Your task to perform on an android device: set an alarm Image 0: 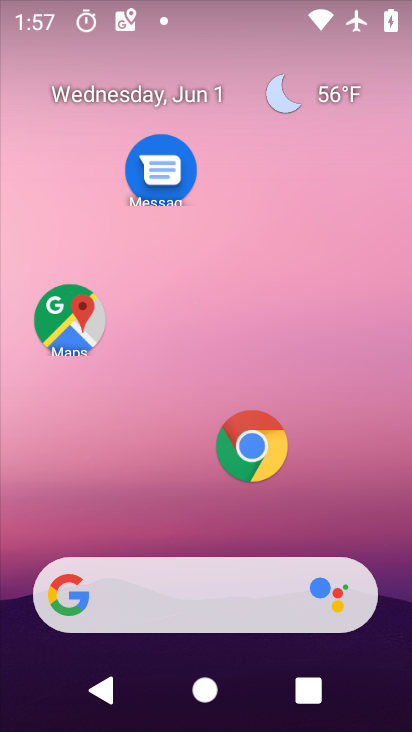
Step 0: drag from (32, 556) to (261, 216)
Your task to perform on an android device: set an alarm Image 1: 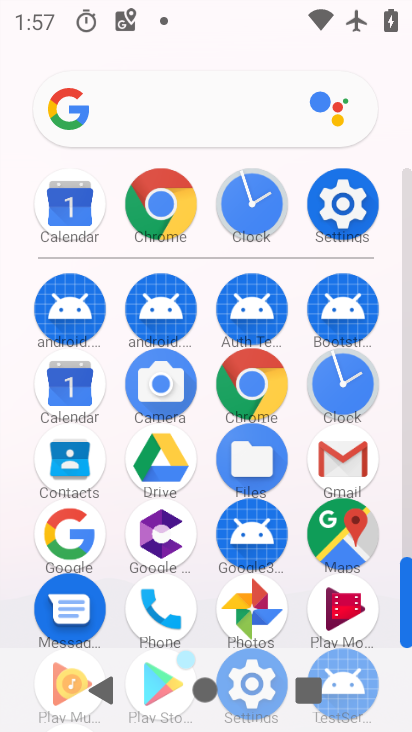
Step 1: click (252, 209)
Your task to perform on an android device: set an alarm Image 2: 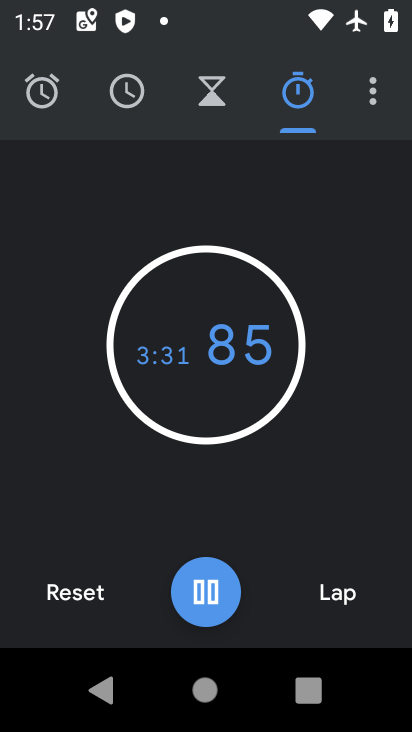
Step 2: click (31, 104)
Your task to perform on an android device: set an alarm Image 3: 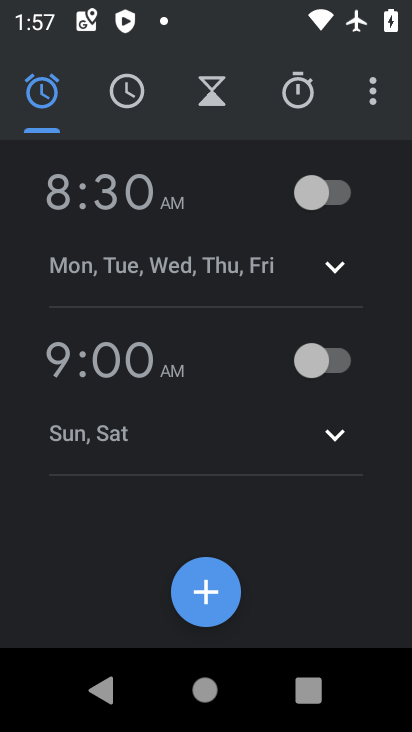
Step 3: click (215, 600)
Your task to perform on an android device: set an alarm Image 4: 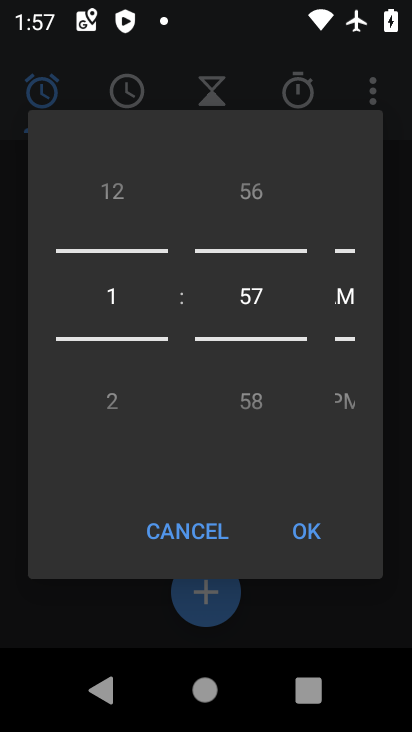
Step 4: click (316, 522)
Your task to perform on an android device: set an alarm Image 5: 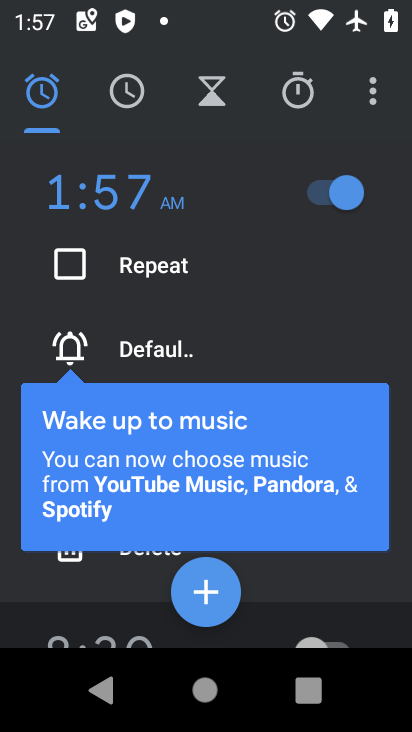
Step 5: task complete